Your task to perform on an android device: uninstall "Venmo" Image 0: 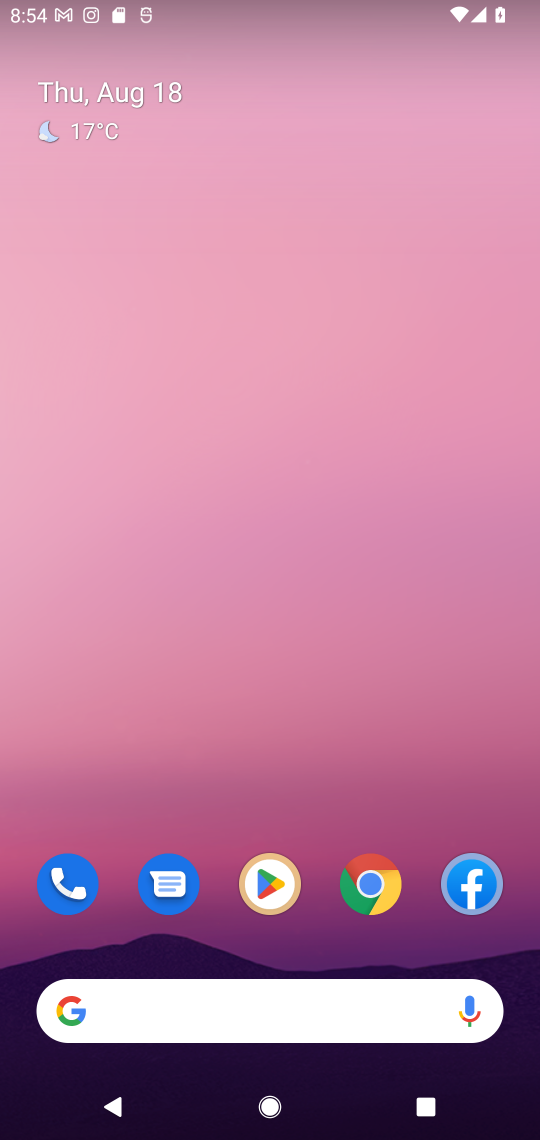
Step 0: drag from (250, 1032) to (253, 362)
Your task to perform on an android device: uninstall "Venmo" Image 1: 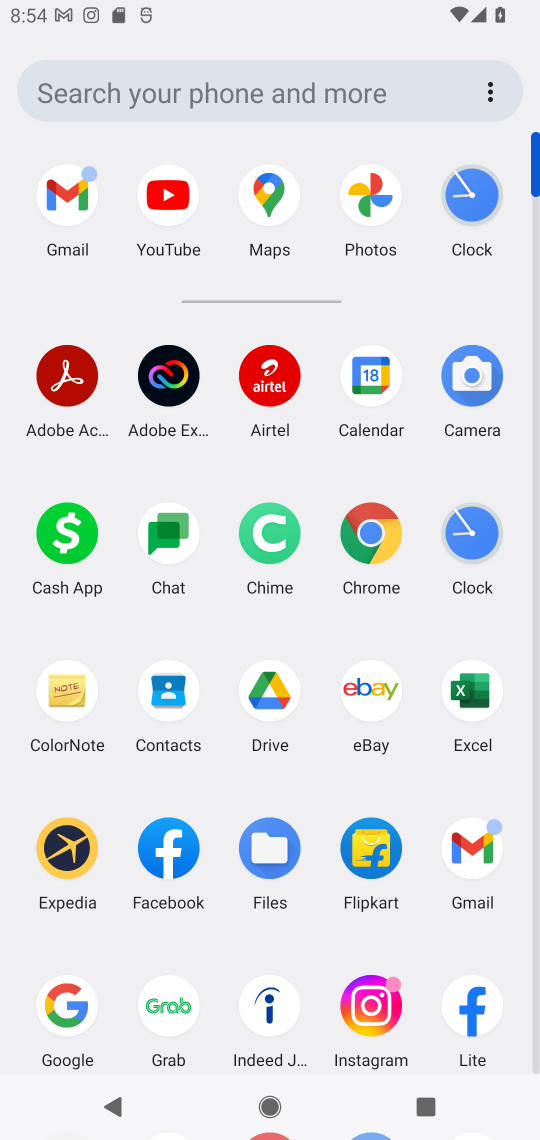
Step 1: drag from (212, 975) to (276, 255)
Your task to perform on an android device: uninstall "Venmo" Image 2: 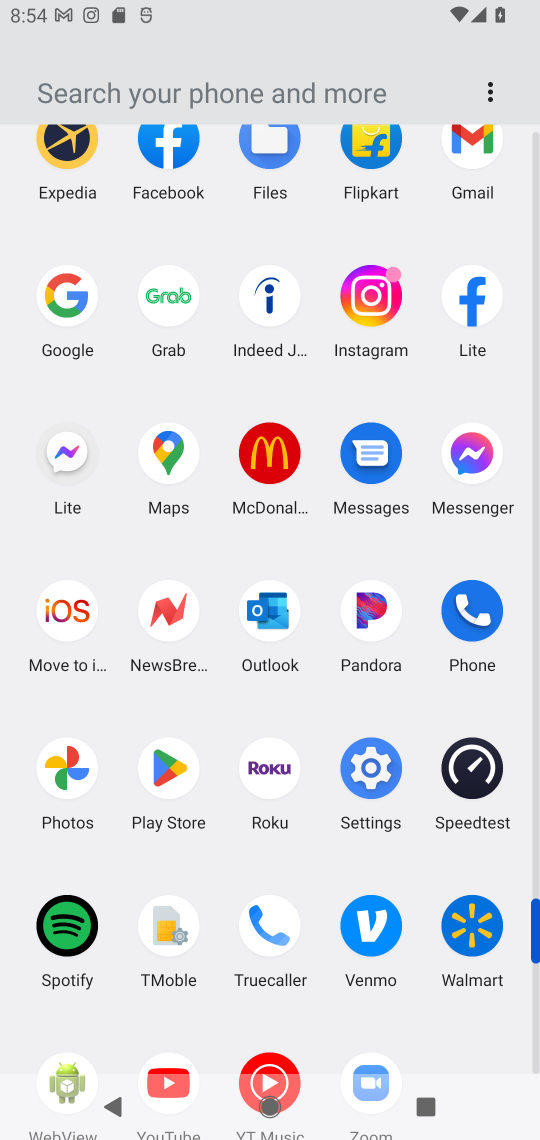
Step 2: click (166, 767)
Your task to perform on an android device: uninstall "Venmo" Image 3: 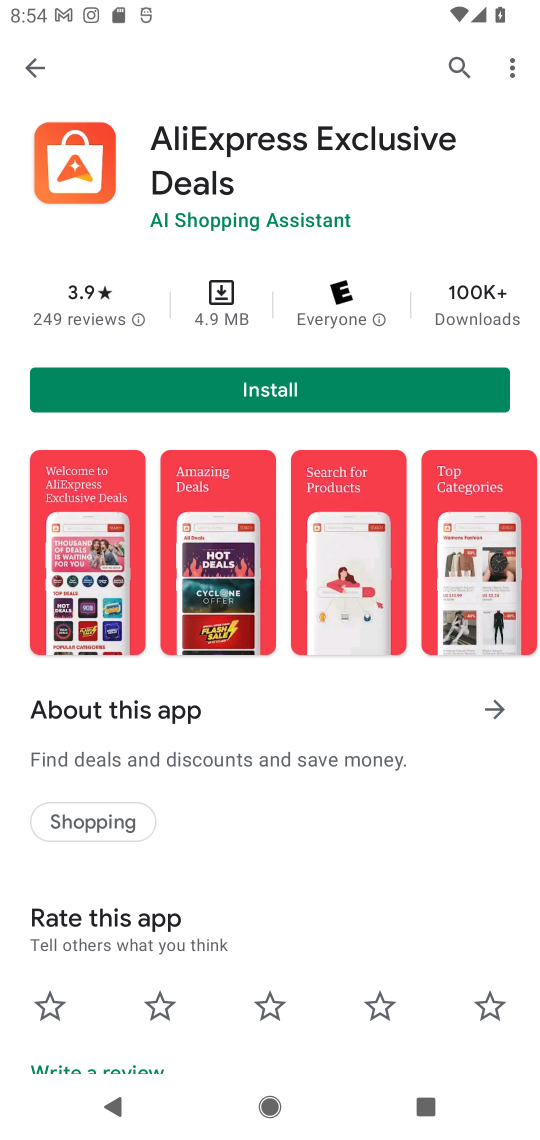
Step 3: press back button
Your task to perform on an android device: uninstall "Venmo" Image 4: 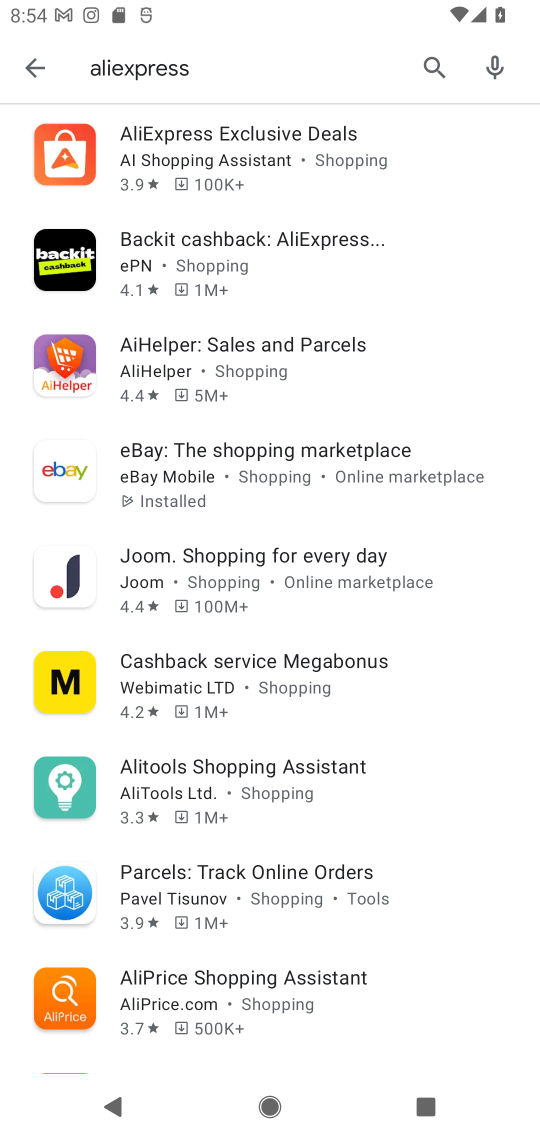
Step 4: press back button
Your task to perform on an android device: uninstall "Venmo" Image 5: 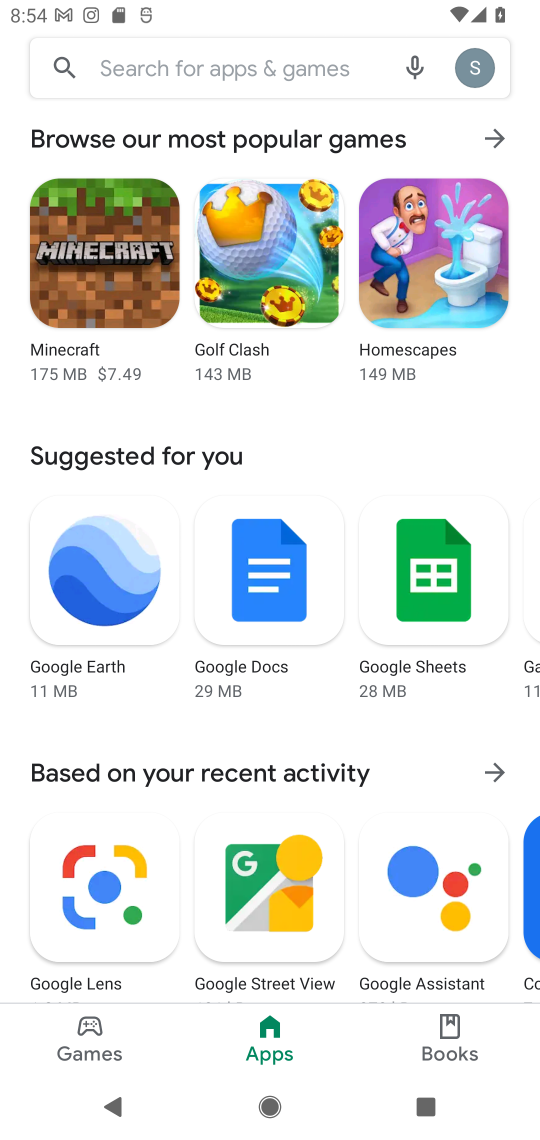
Step 5: click (268, 72)
Your task to perform on an android device: uninstall "Venmo" Image 6: 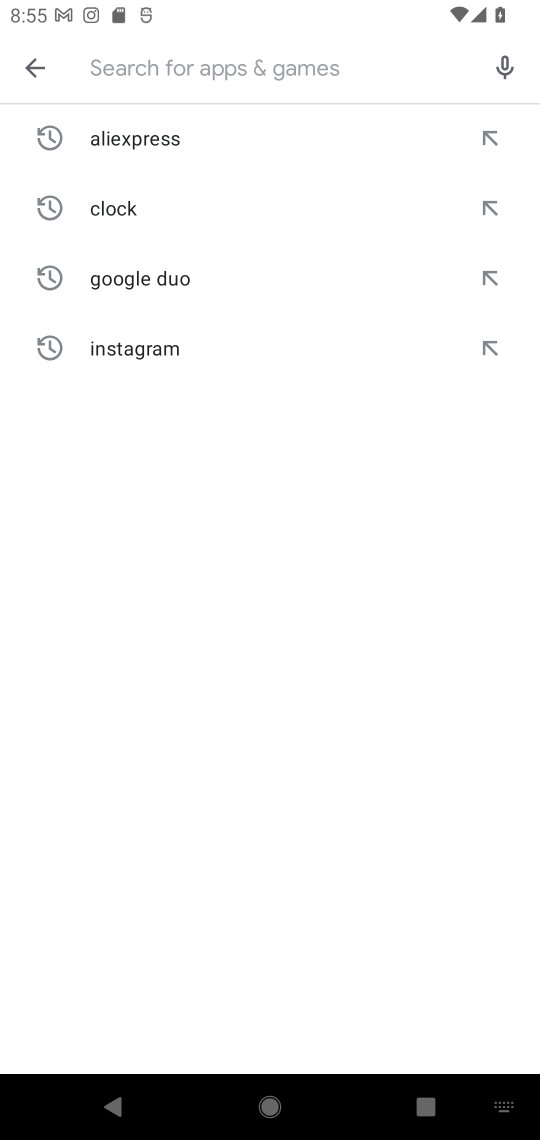
Step 6: type "Venmo"
Your task to perform on an android device: uninstall "Venmo" Image 7: 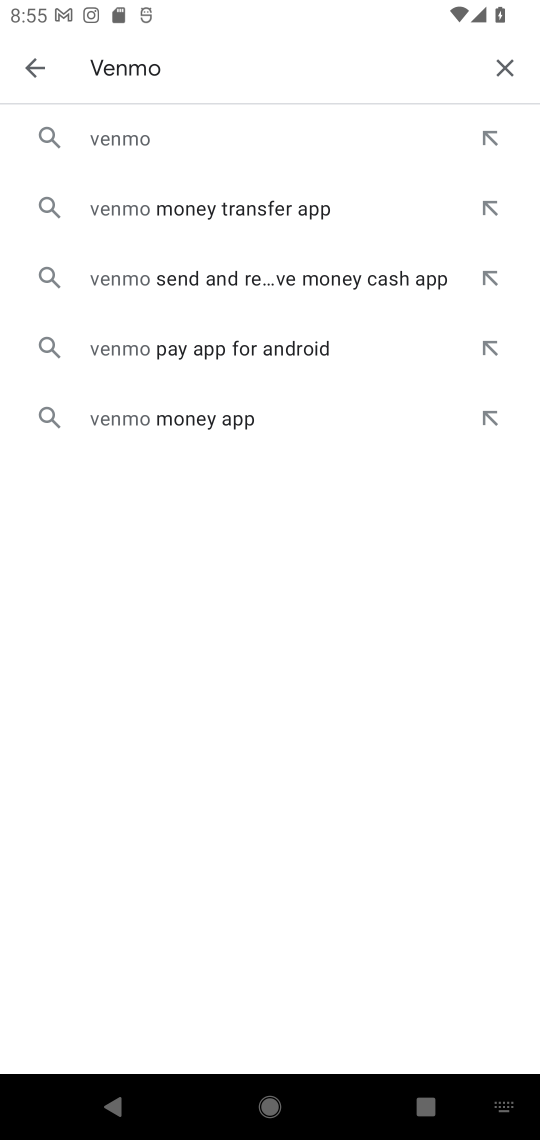
Step 7: click (112, 138)
Your task to perform on an android device: uninstall "Venmo" Image 8: 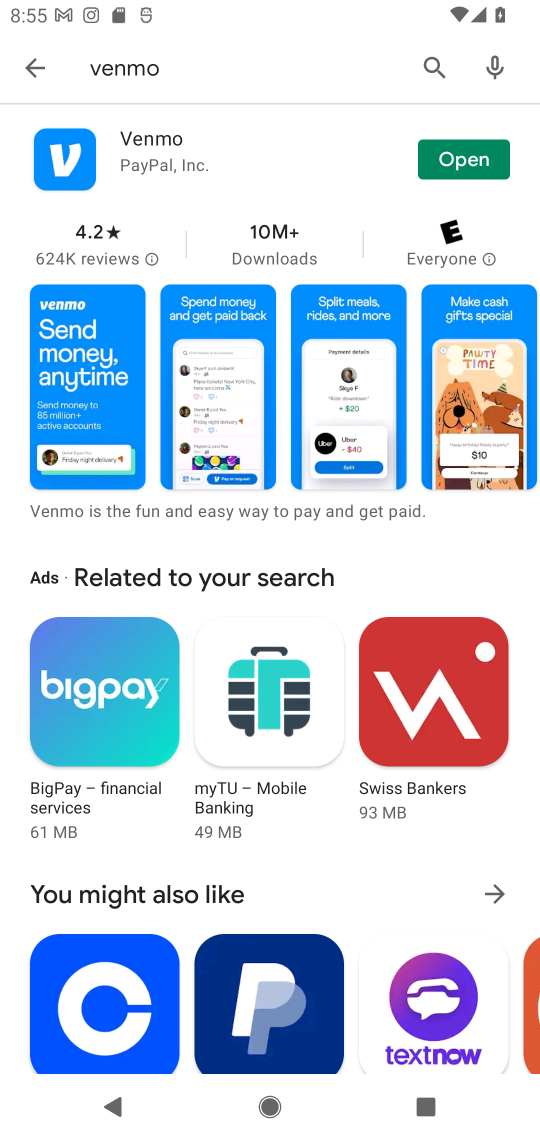
Step 8: click (136, 137)
Your task to perform on an android device: uninstall "Venmo" Image 9: 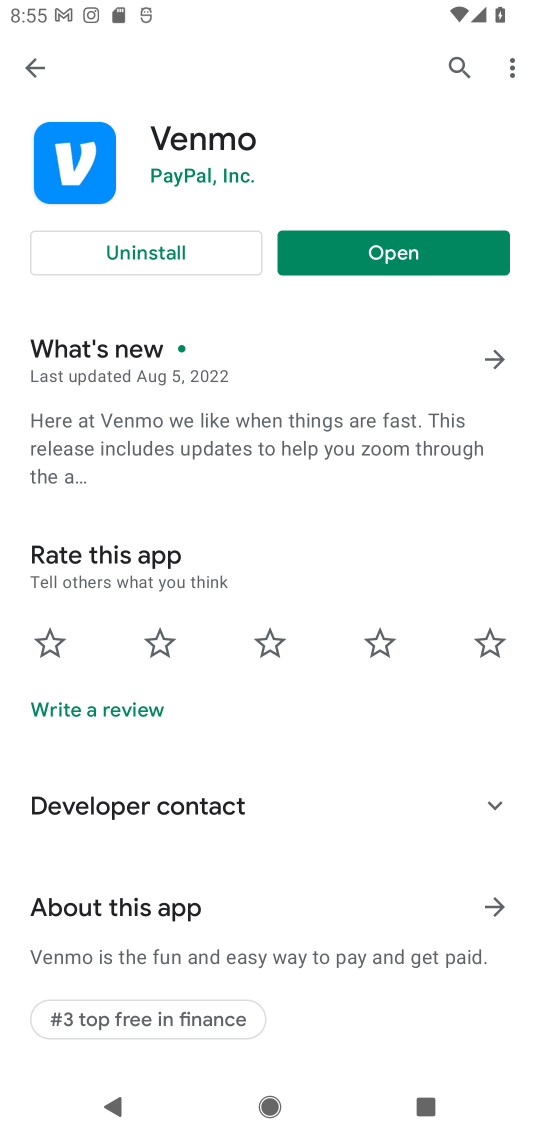
Step 9: click (157, 250)
Your task to perform on an android device: uninstall "Venmo" Image 10: 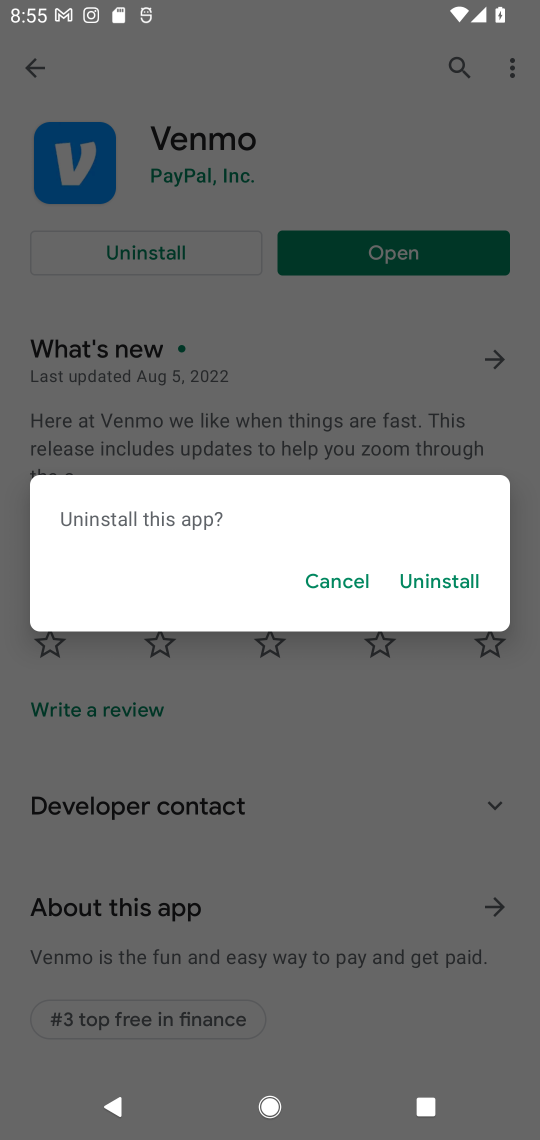
Step 10: click (450, 577)
Your task to perform on an android device: uninstall "Venmo" Image 11: 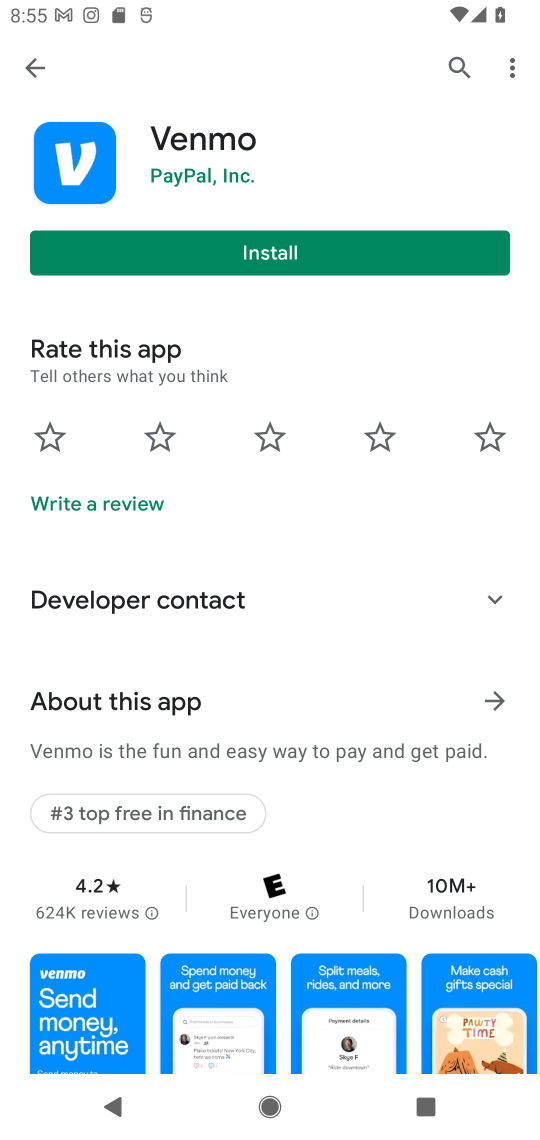
Step 11: task complete